Your task to perform on an android device: change the clock display to show seconds Image 0: 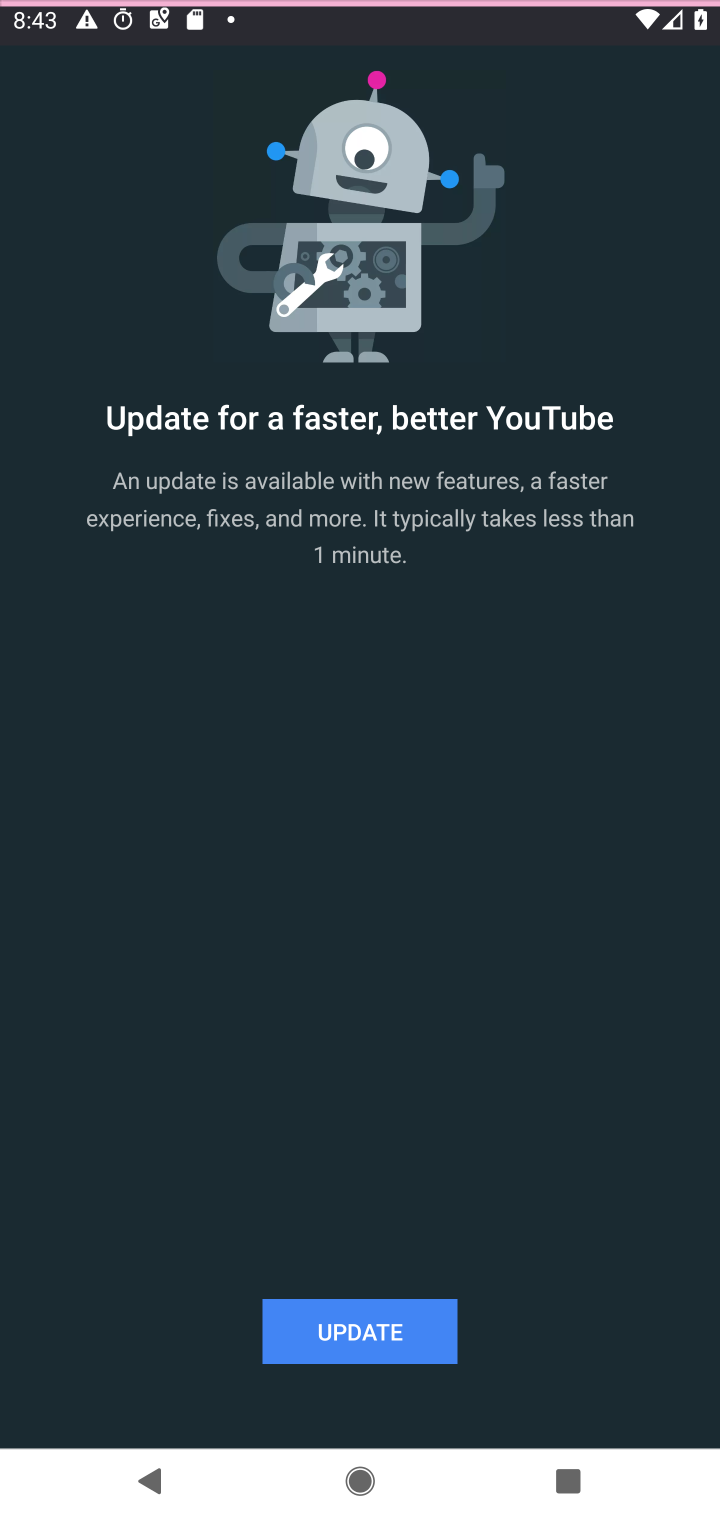
Step 0: press home button
Your task to perform on an android device: change the clock display to show seconds Image 1: 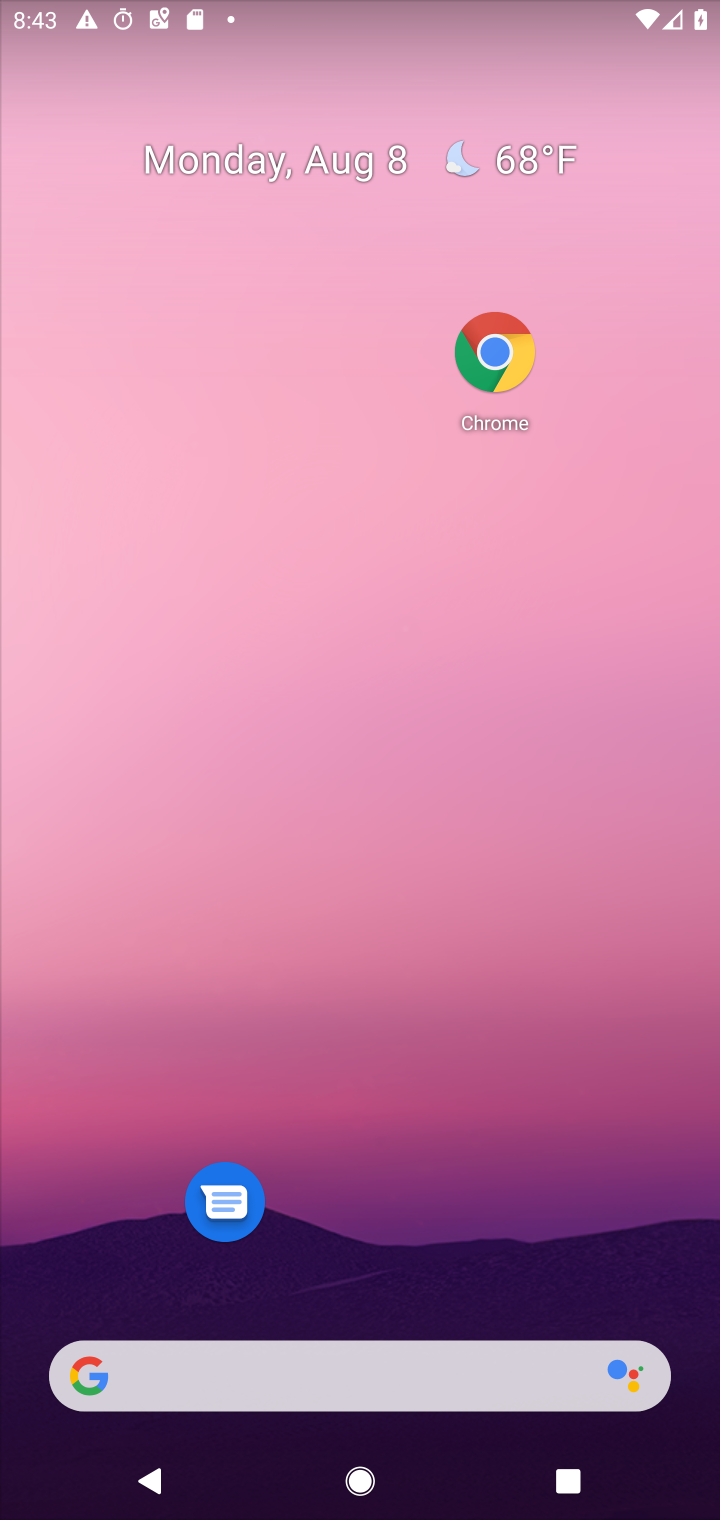
Step 1: drag from (408, 1212) to (462, 400)
Your task to perform on an android device: change the clock display to show seconds Image 2: 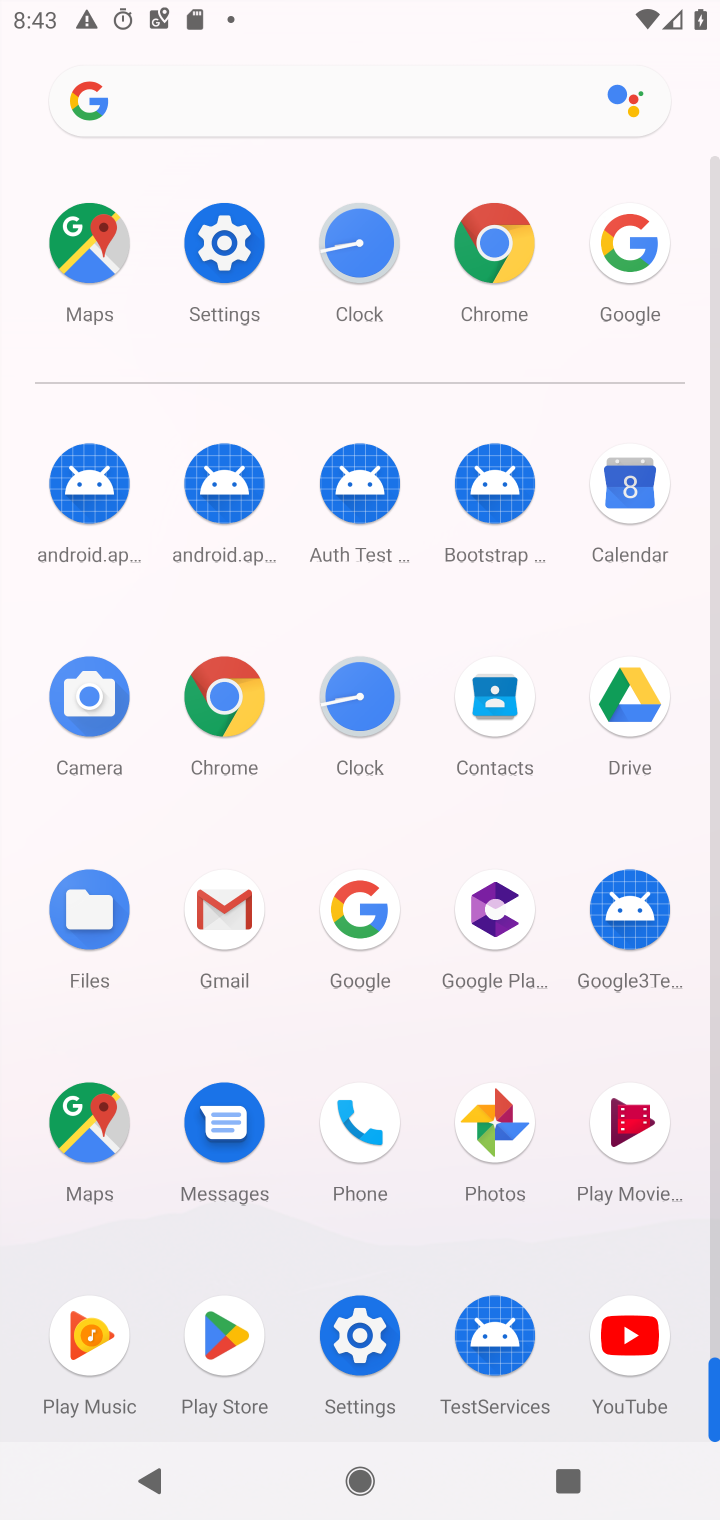
Step 2: click (369, 728)
Your task to perform on an android device: change the clock display to show seconds Image 3: 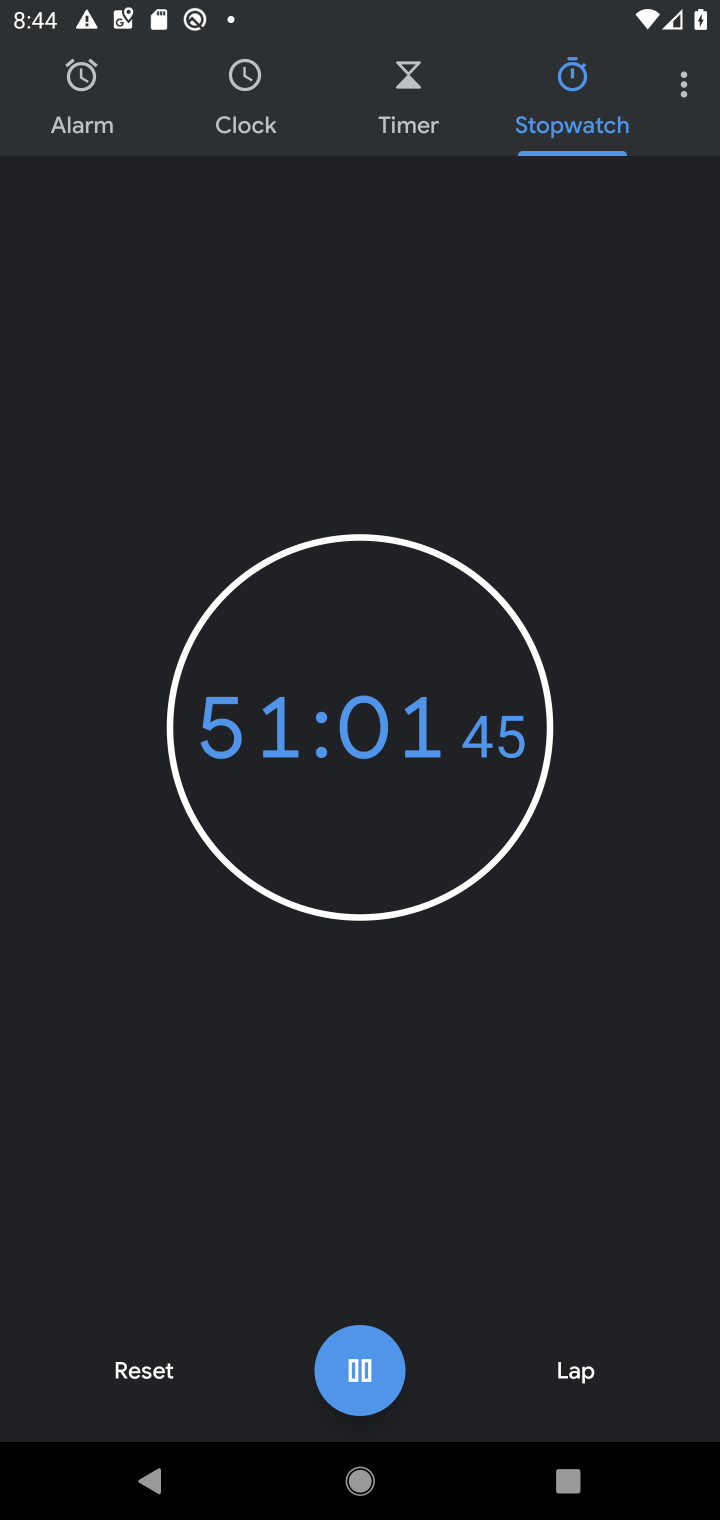
Step 3: click (685, 97)
Your task to perform on an android device: change the clock display to show seconds Image 4: 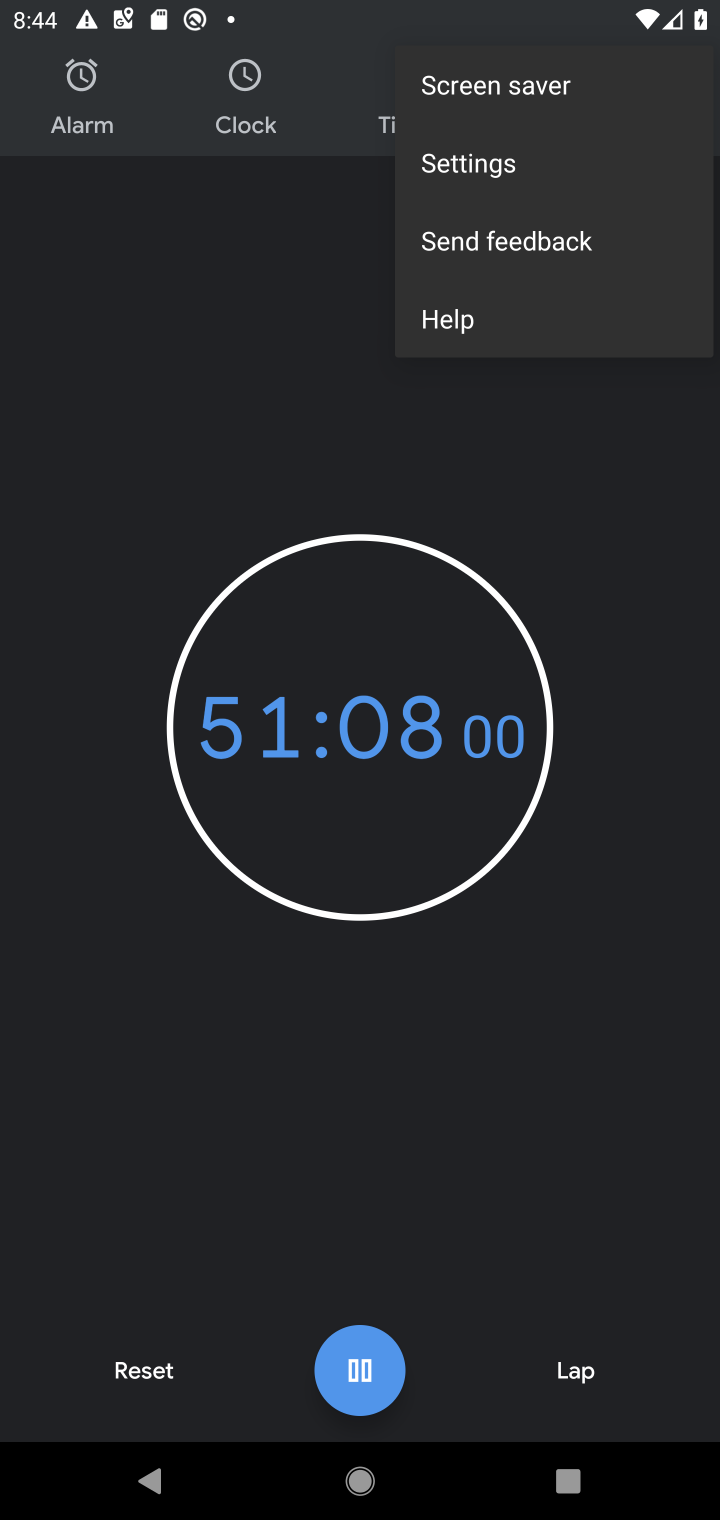
Step 4: click (466, 167)
Your task to perform on an android device: change the clock display to show seconds Image 5: 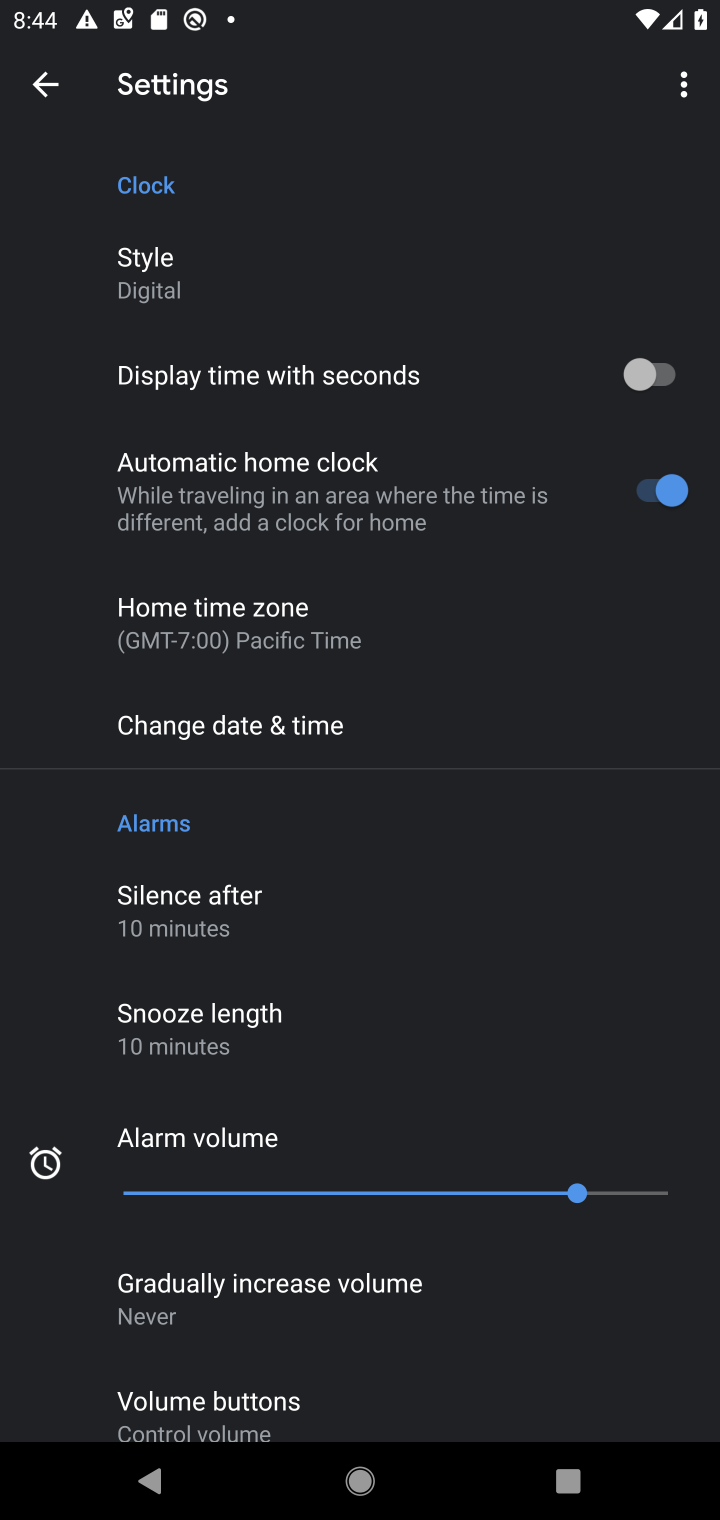
Step 5: click (568, 382)
Your task to perform on an android device: change the clock display to show seconds Image 6: 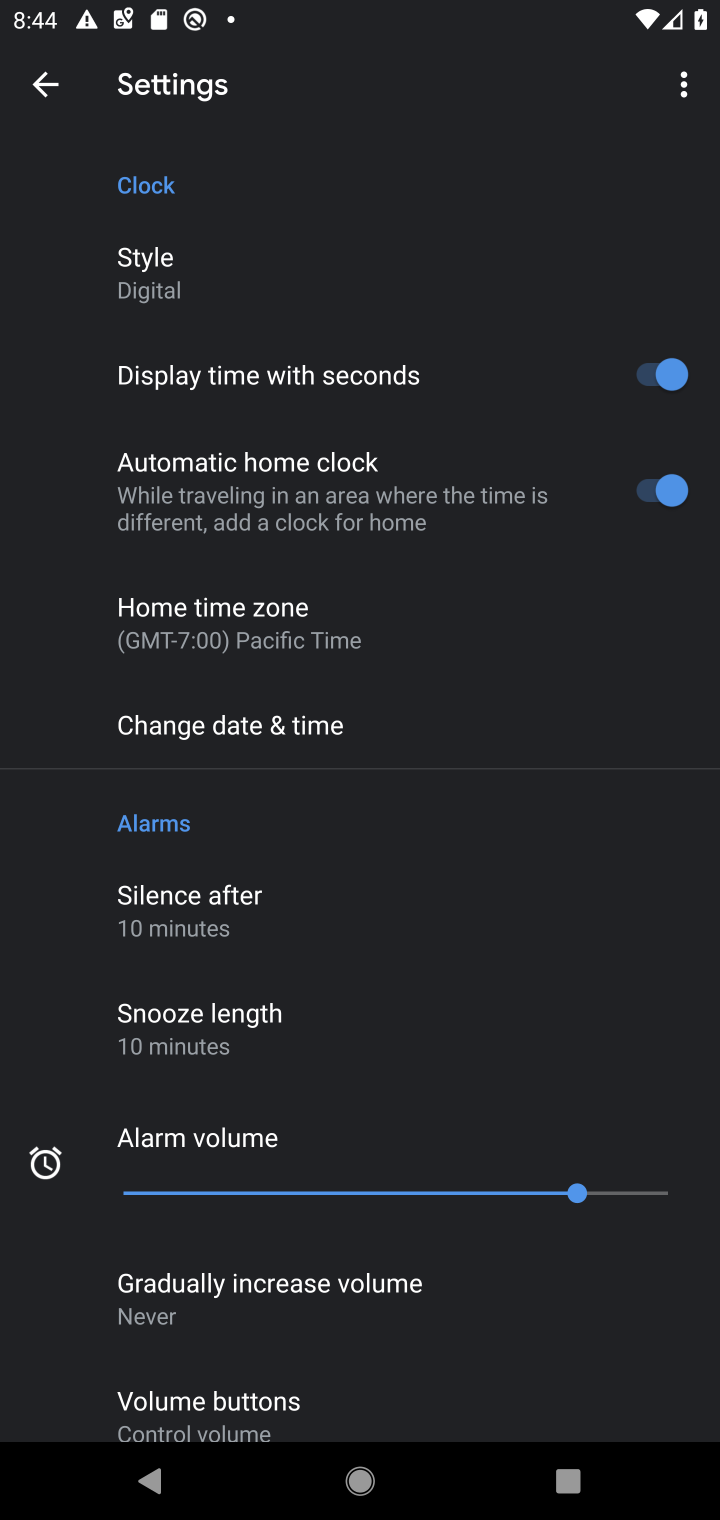
Step 6: task complete